Your task to perform on an android device: all mails in gmail Image 0: 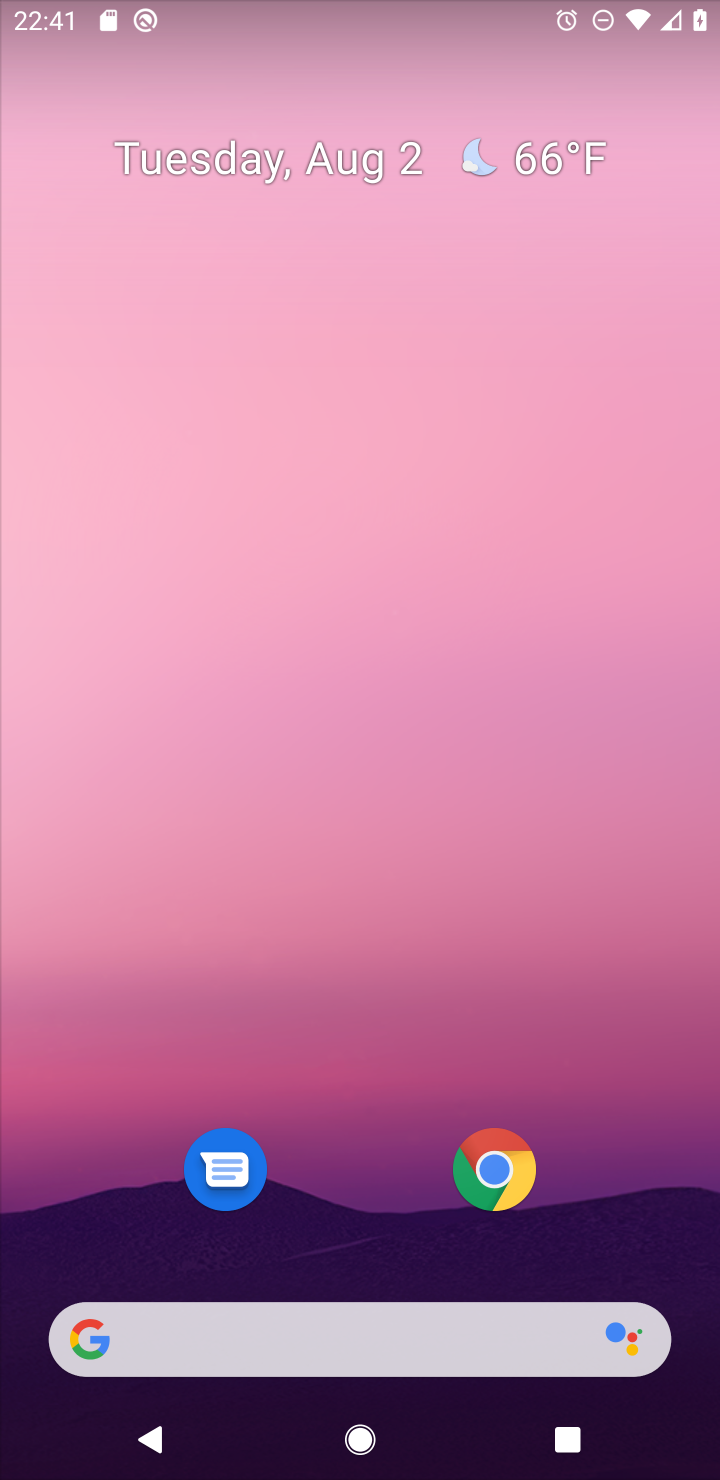
Step 0: drag from (373, 1175) to (356, 142)
Your task to perform on an android device: all mails in gmail Image 1: 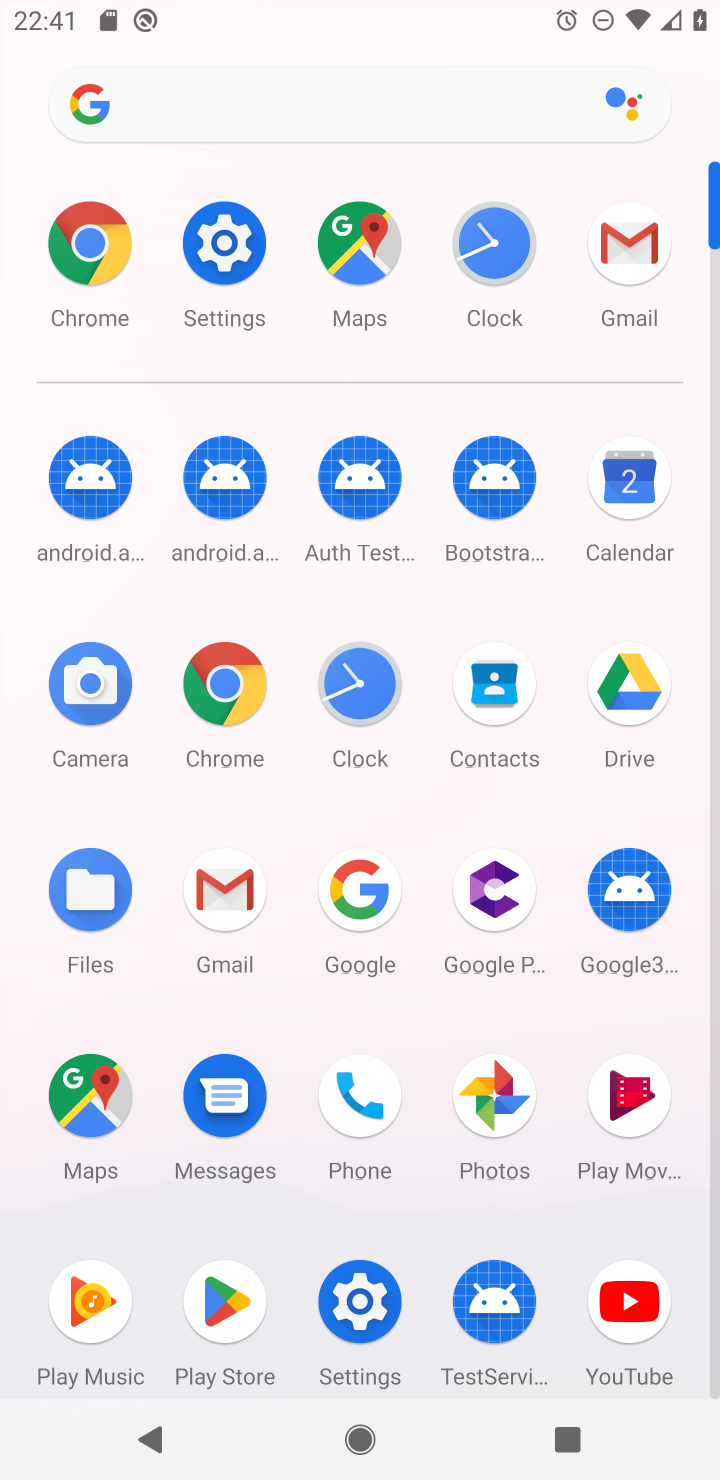
Step 1: click (217, 900)
Your task to perform on an android device: all mails in gmail Image 2: 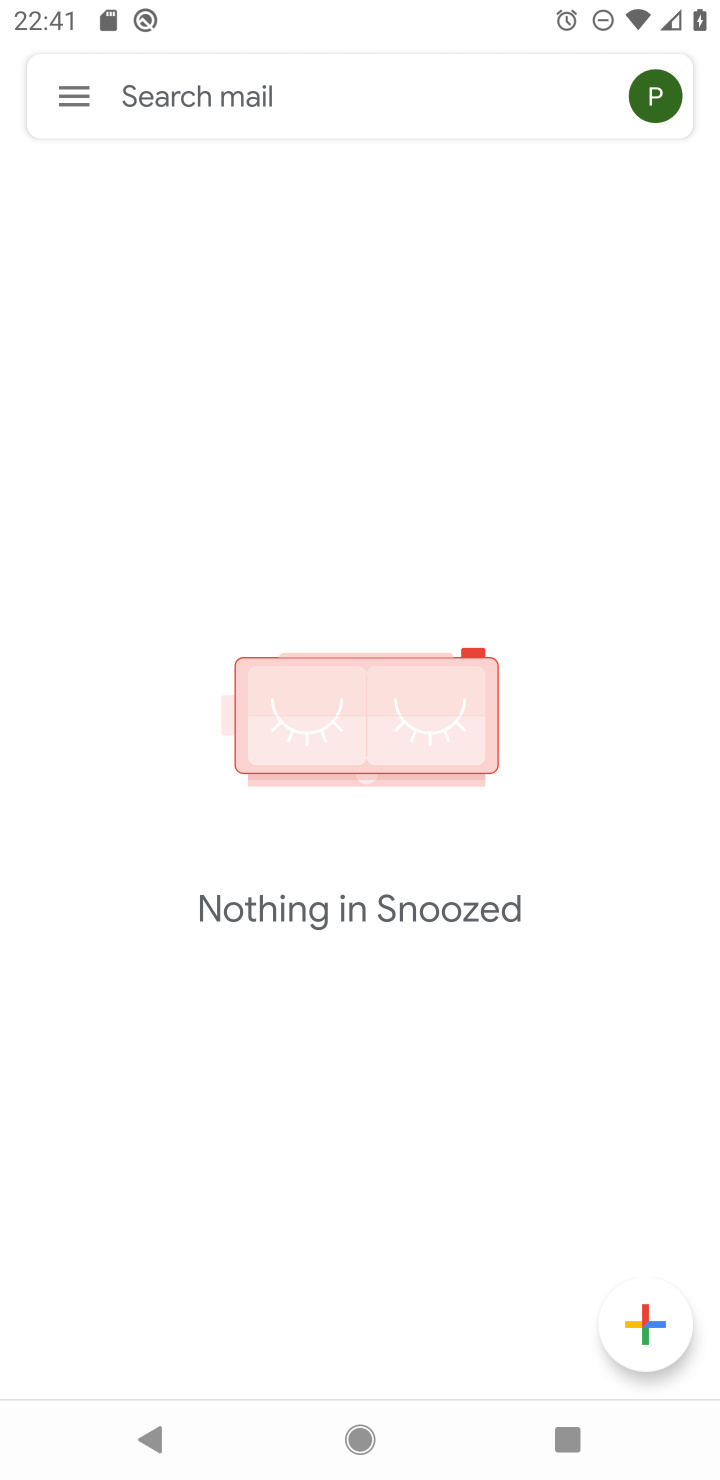
Step 2: click (64, 95)
Your task to perform on an android device: all mails in gmail Image 3: 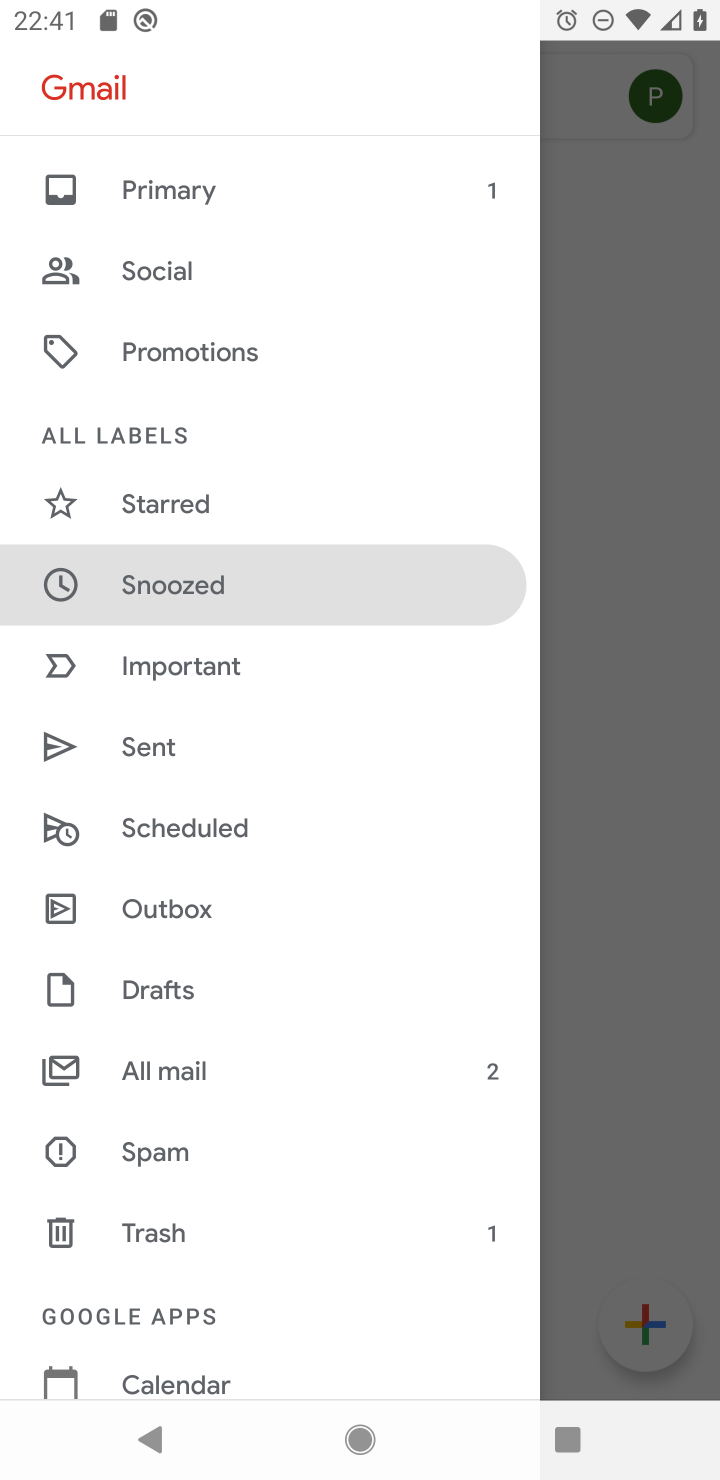
Step 3: click (169, 1073)
Your task to perform on an android device: all mails in gmail Image 4: 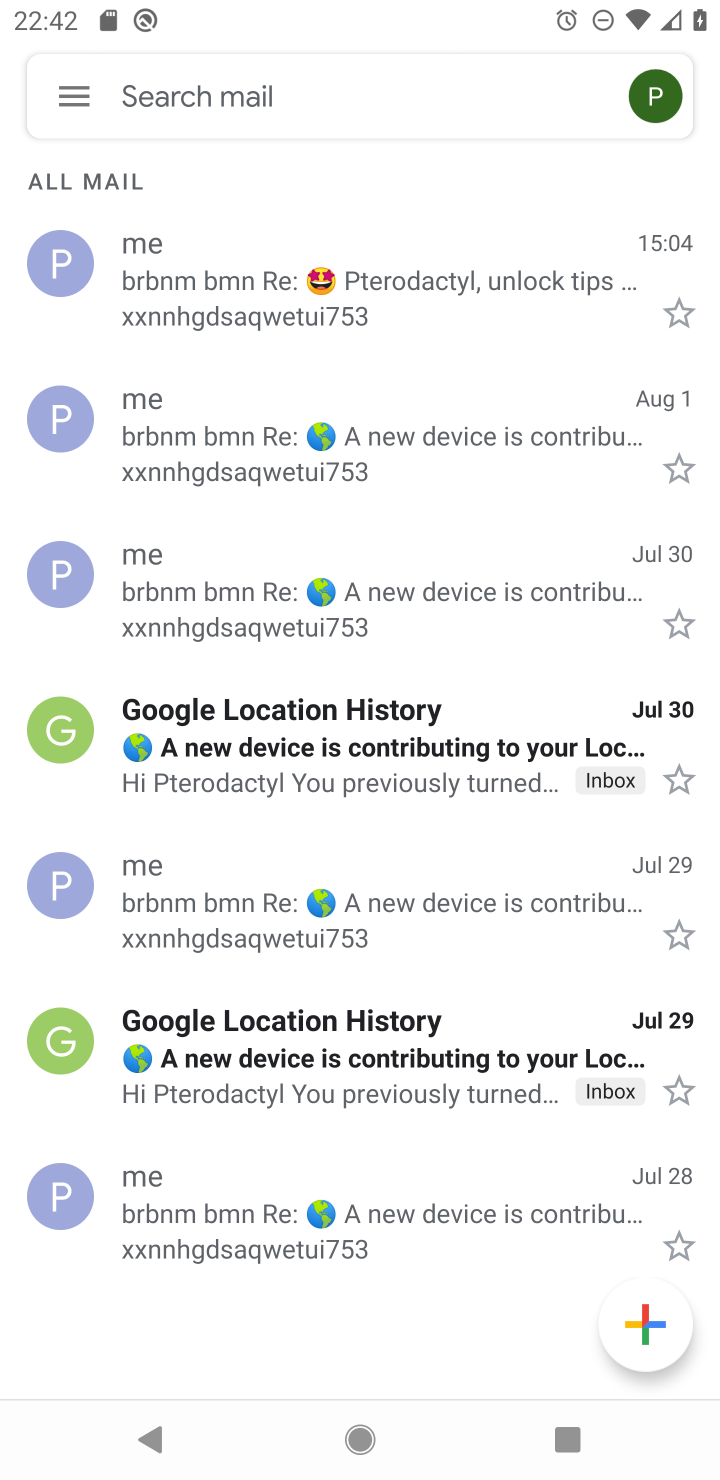
Step 4: task complete